Your task to perform on an android device: Play the last video I watched on Youtube Image 0: 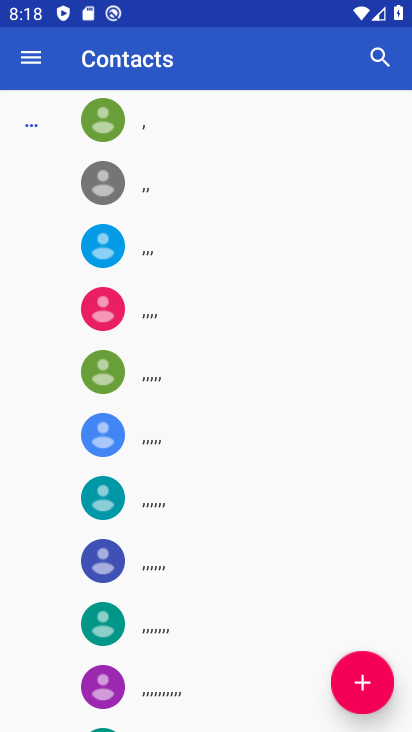
Step 0: press home button
Your task to perform on an android device: Play the last video I watched on Youtube Image 1: 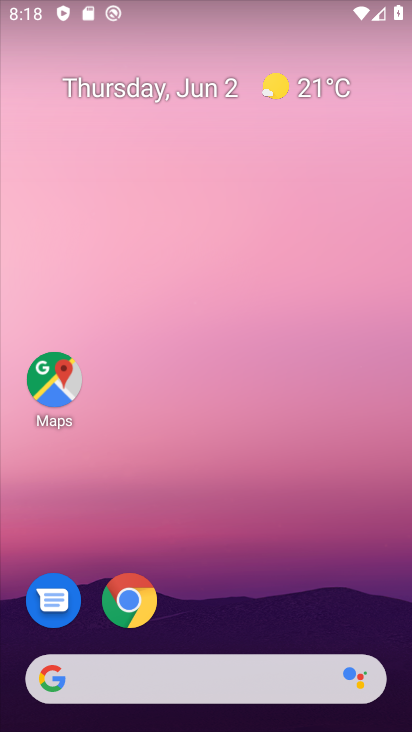
Step 1: drag from (197, 634) to (212, 281)
Your task to perform on an android device: Play the last video I watched on Youtube Image 2: 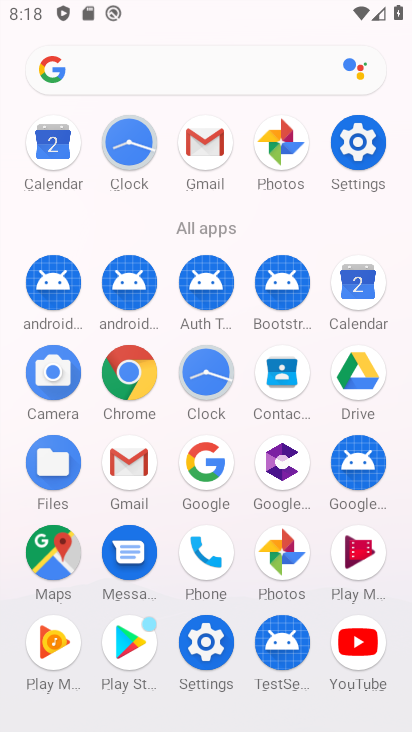
Step 2: click (366, 638)
Your task to perform on an android device: Play the last video I watched on Youtube Image 3: 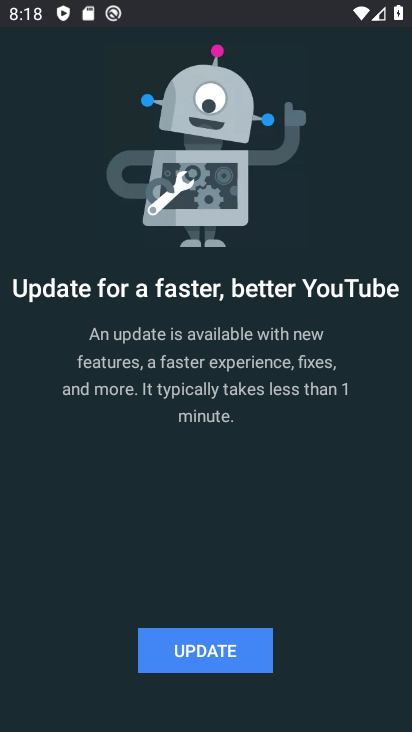
Step 3: click (253, 643)
Your task to perform on an android device: Play the last video I watched on Youtube Image 4: 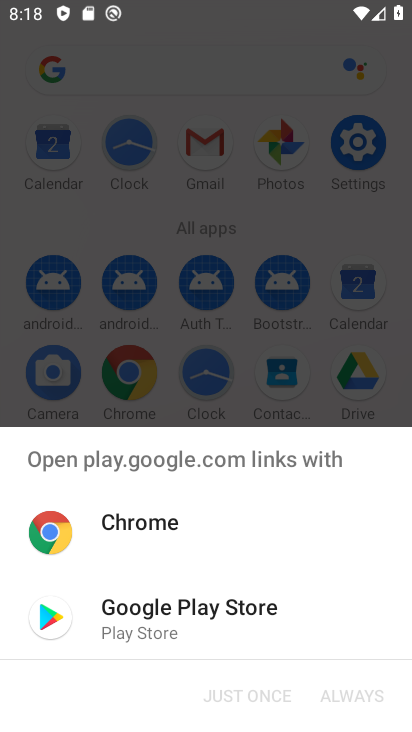
Step 4: click (156, 622)
Your task to perform on an android device: Play the last video I watched on Youtube Image 5: 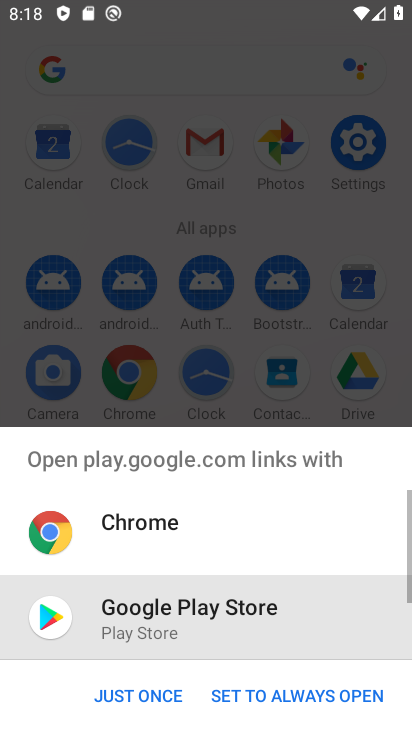
Step 5: click (147, 694)
Your task to perform on an android device: Play the last video I watched on Youtube Image 6: 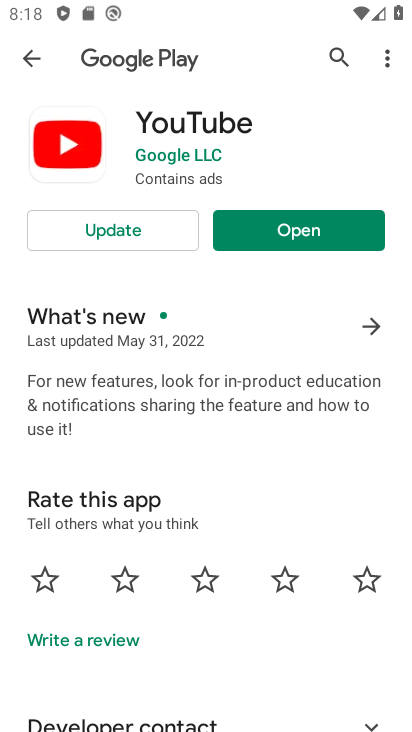
Step 6: click (122, 233)
Your task to perform on an android device: Play the last video I watched on Youtube Image 7: 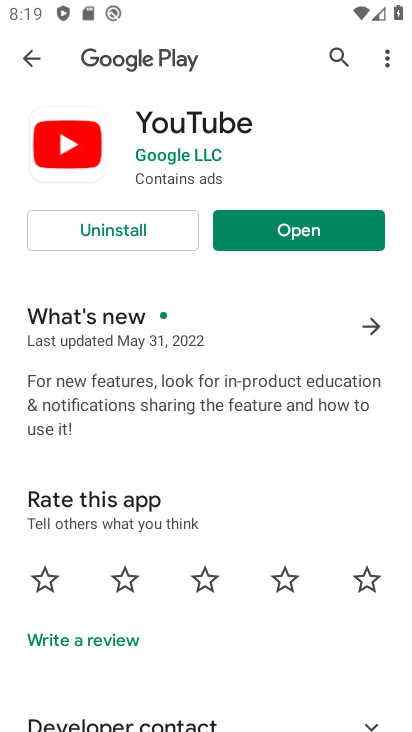
Step 7: click (272, 228)
Your task to perform on an android device: Play the last video I watched on Youtube Image 8: 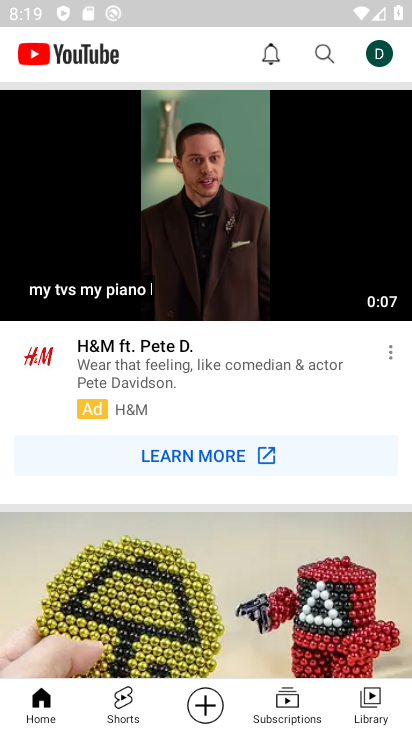
Step 8: click (371, 703)
Your task to perform on an android device: Play the last video I watched on Youtube Image 9: 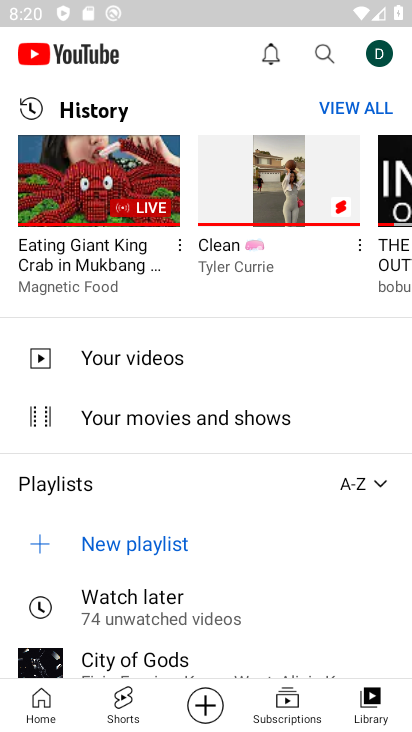
Step 9: click (112, 216)
Your task to perform on an android device: Play the last video I watched on Youtube Image 10: 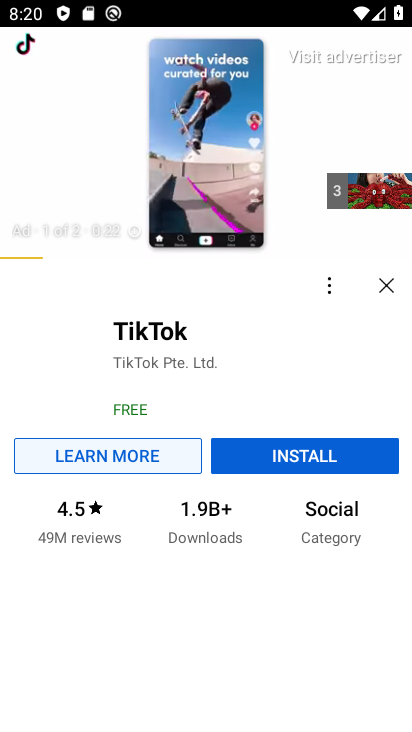
Step 10: task complete